Your task to perform on an android device: Clear the shopping cart on amazon.com. Search for dell xps on amazon.com, select the first entry, add it to the cart, then select checkout. Image 0: 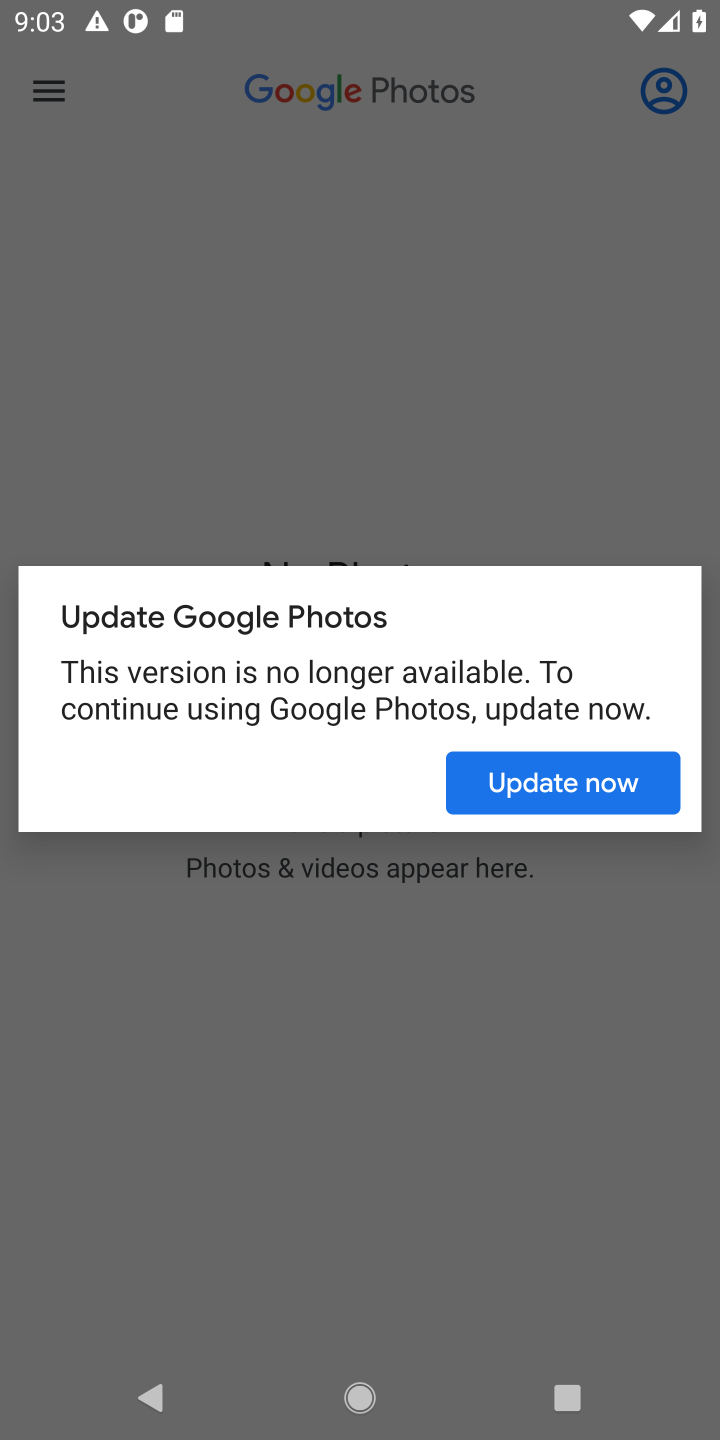
Step 0: press home button
Your task to perform on an android device: Clear the shopping cart on amazon.com. Search for dell xps on amazon.com, select the first entry, add it to the cart, then select checkout. Image 1: 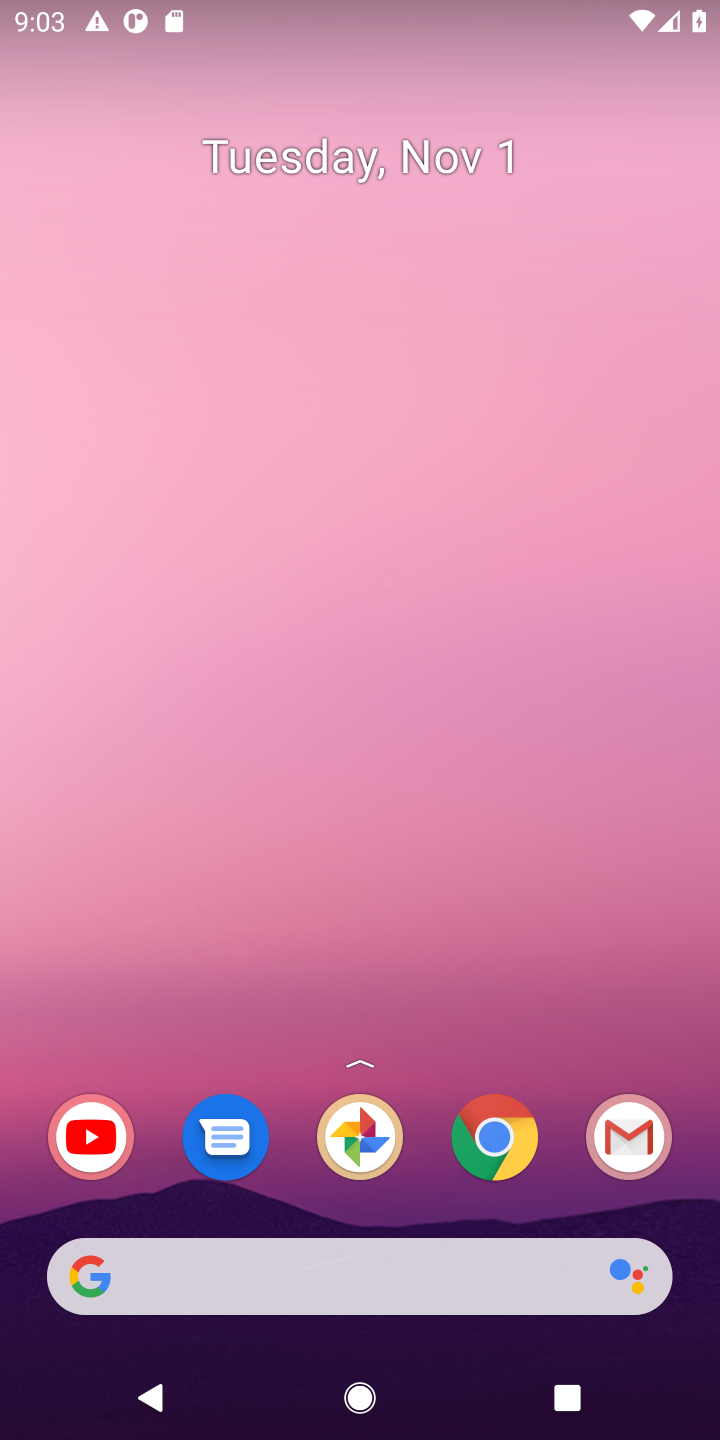
Step 1: drag from (349, 1156) to (385, 434)
Your task to perform on an android device: Clear the shopping cart on amazon.com. Search for dell xps on amazon.com, select the first entry, add it to the cart, then select checkout. Image 2: 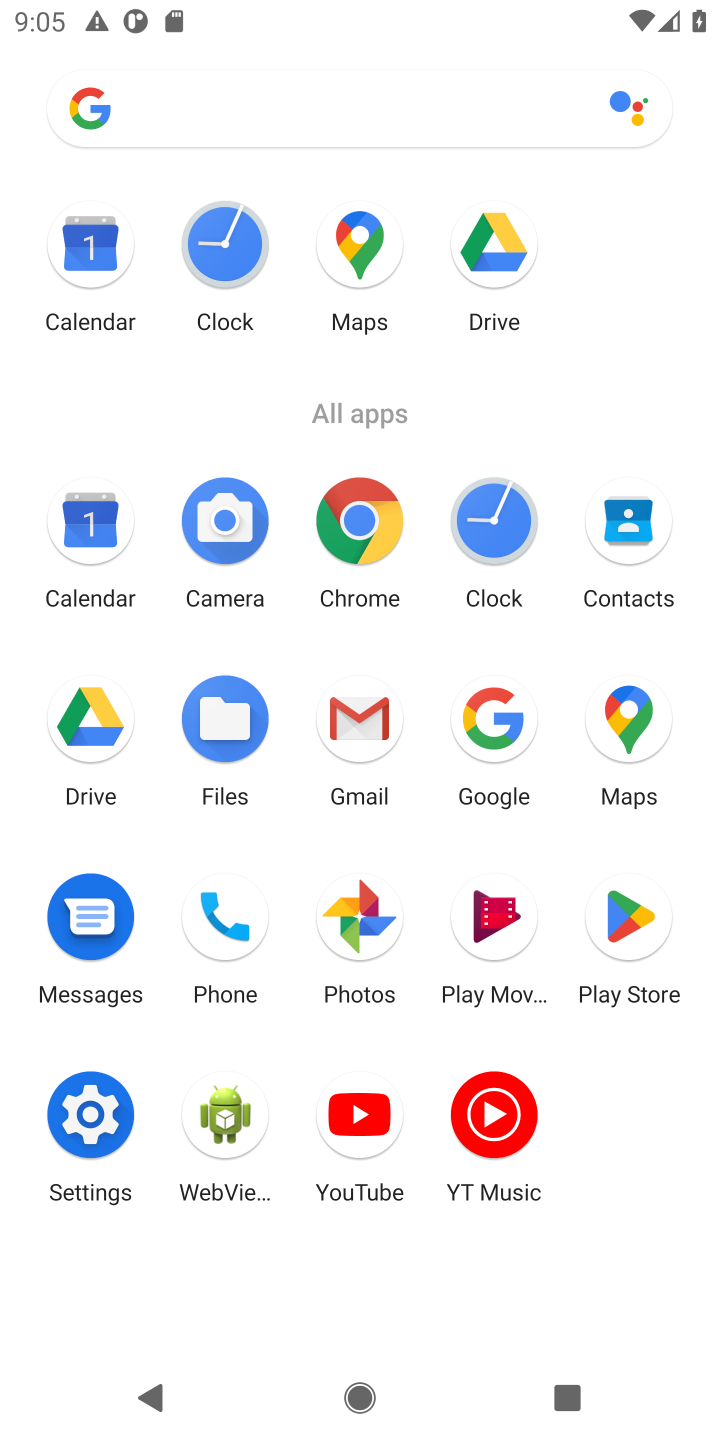
Step 2: click (498, 774)
Your task to perform on an android device: Clear the shopping cart on amazon.com. Search for dell xps on amazon.com, select the first entry, add it to the cart, then select checkout. Image 3: 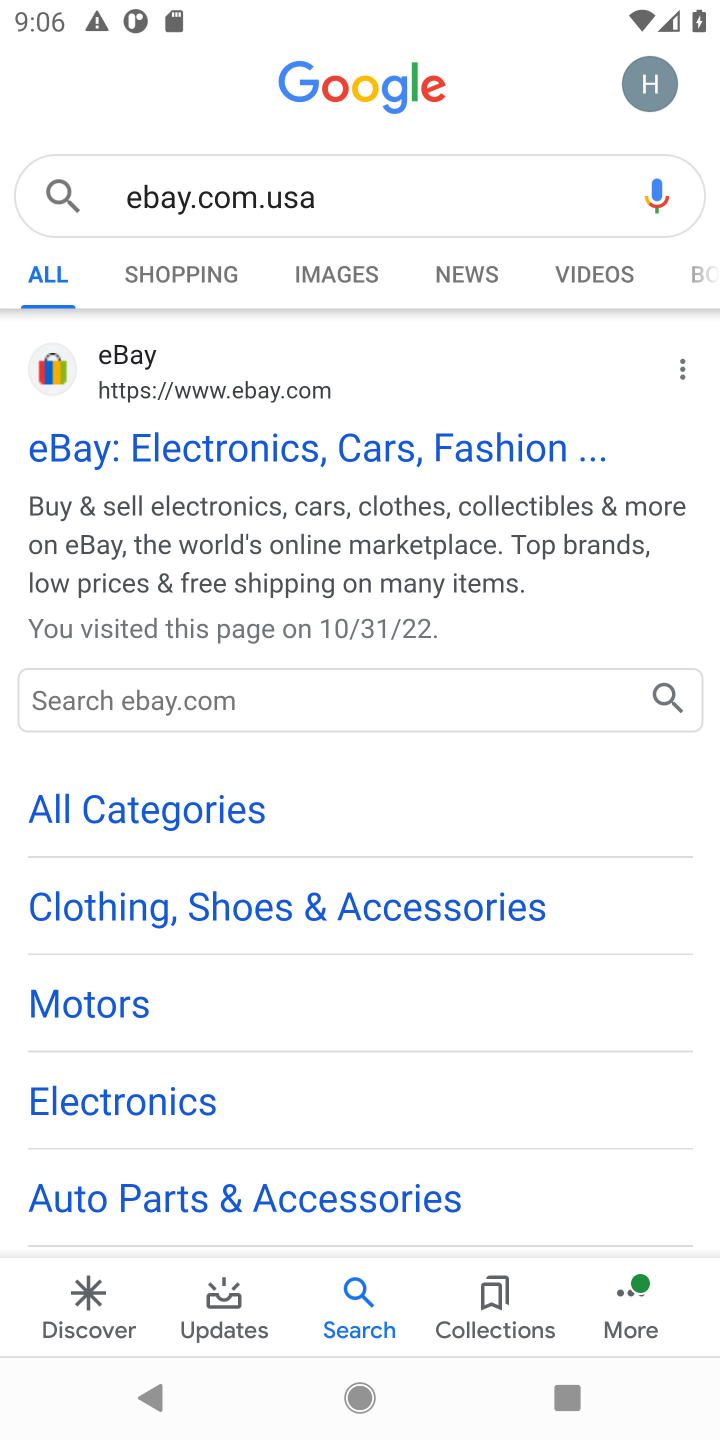
Step 3: click (365, 189)
Your task to perform on an android device: Clear the shopping cart on amazon.com. Search for dell xps on amazon.com, select the first entry, add it to the cart, then select checkout. Image 4: 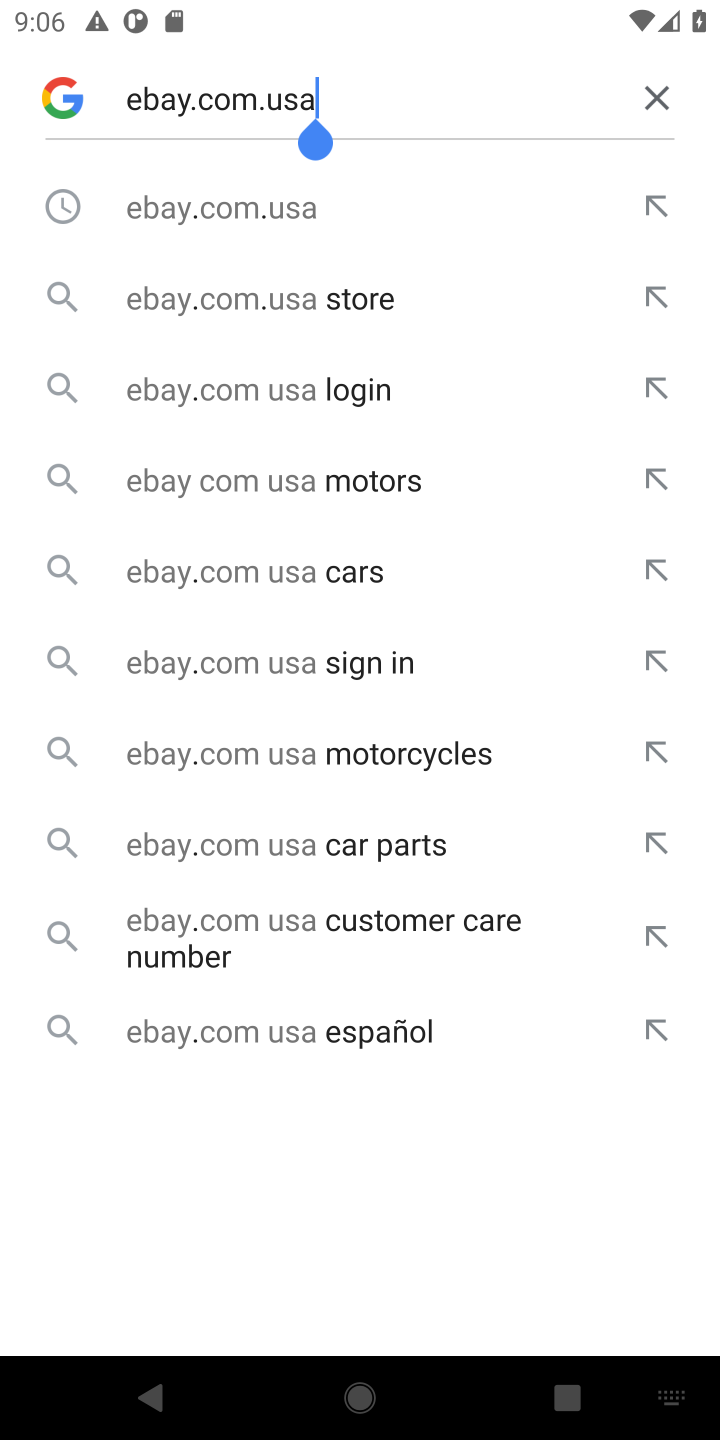
Step 4: click (647, 98)
Your task to perform on an android device: Clear the shopping cart on amazon.com. Search for dell xps on amazon.com, select the first entry, add it to the cart, then select checkout. Image 5: 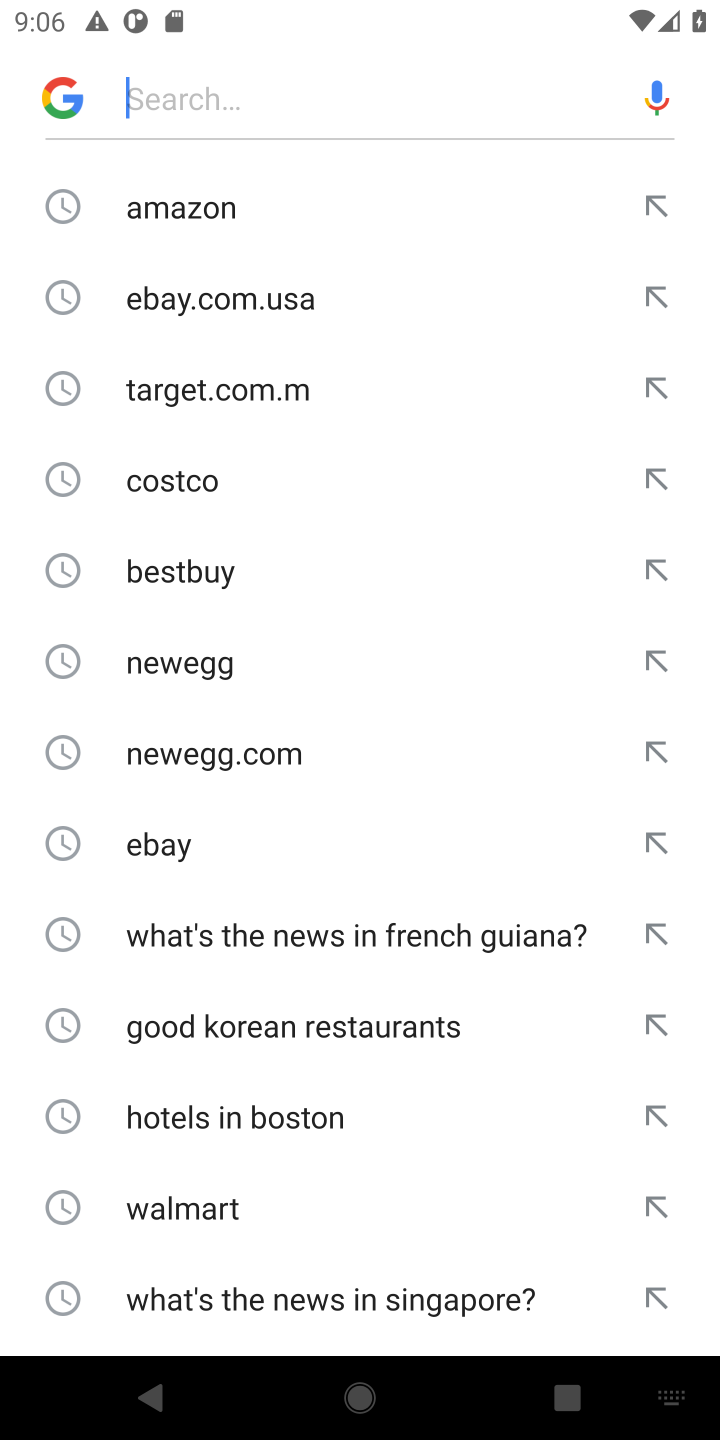
Step 5: click (221, 237)
Your task to perform on an android device: Clear the shopping cart on amazon.com. Search for dell xps on amazon.com, select the first entry, add it to the cart, then select checkout. Image 6: 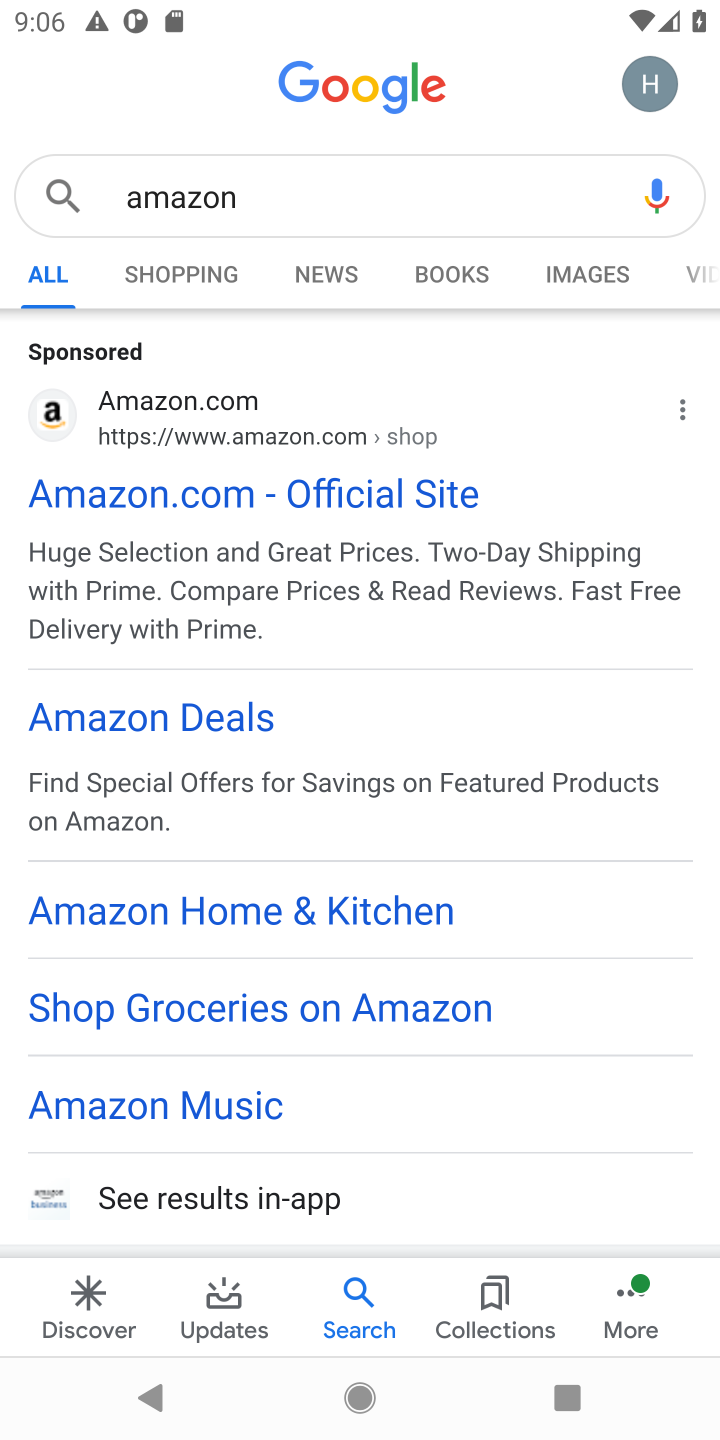
Step 6: click (93, 451)
Your task to perform on an android device: Clear the shopping cart on amazon.com. Search for dell xps on amazon.com, select the first entry, add it to the cart, then select checkout. Image 7: 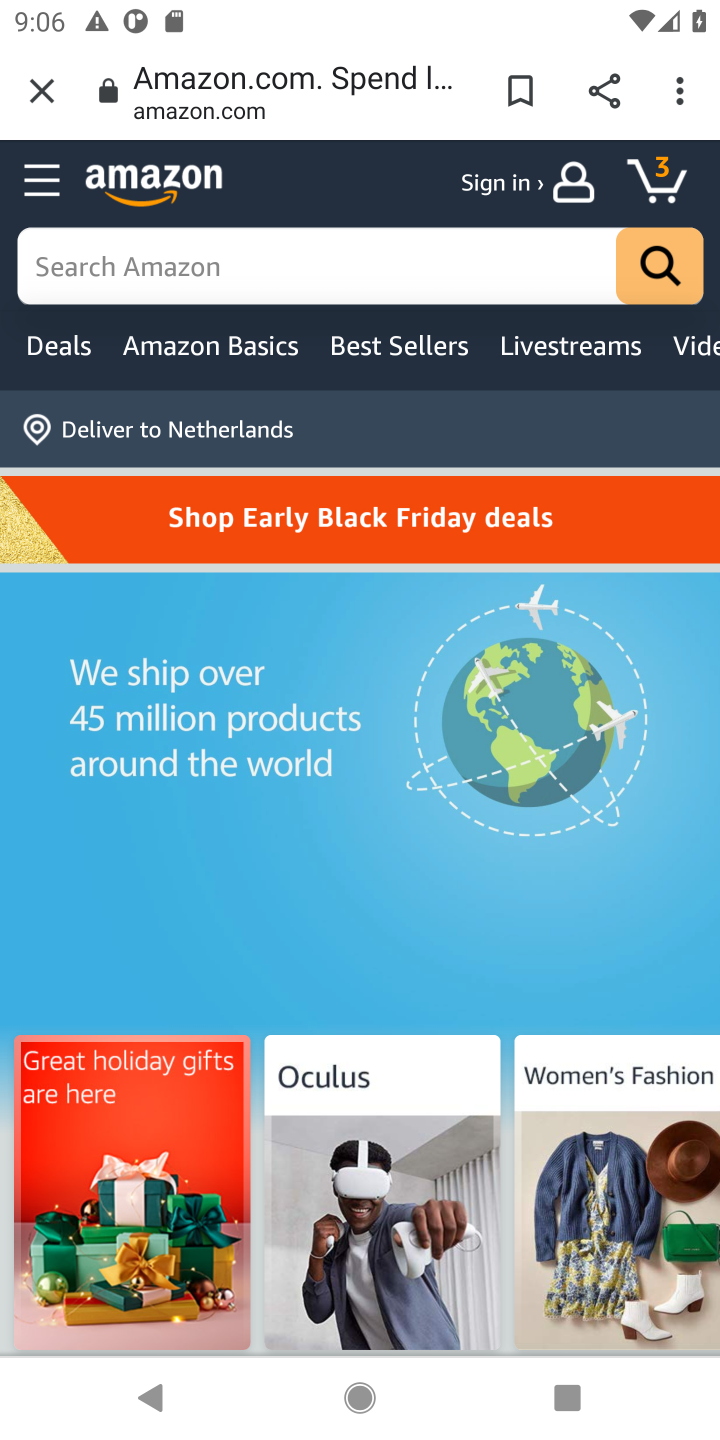
Step 7: click (247, 261)
Your task to perform on an android device: Clear the shopping cart on amazon.com. Search for dell xps on amazon.com, select the first entry, add it to the cart, then select checkout. Image 8: 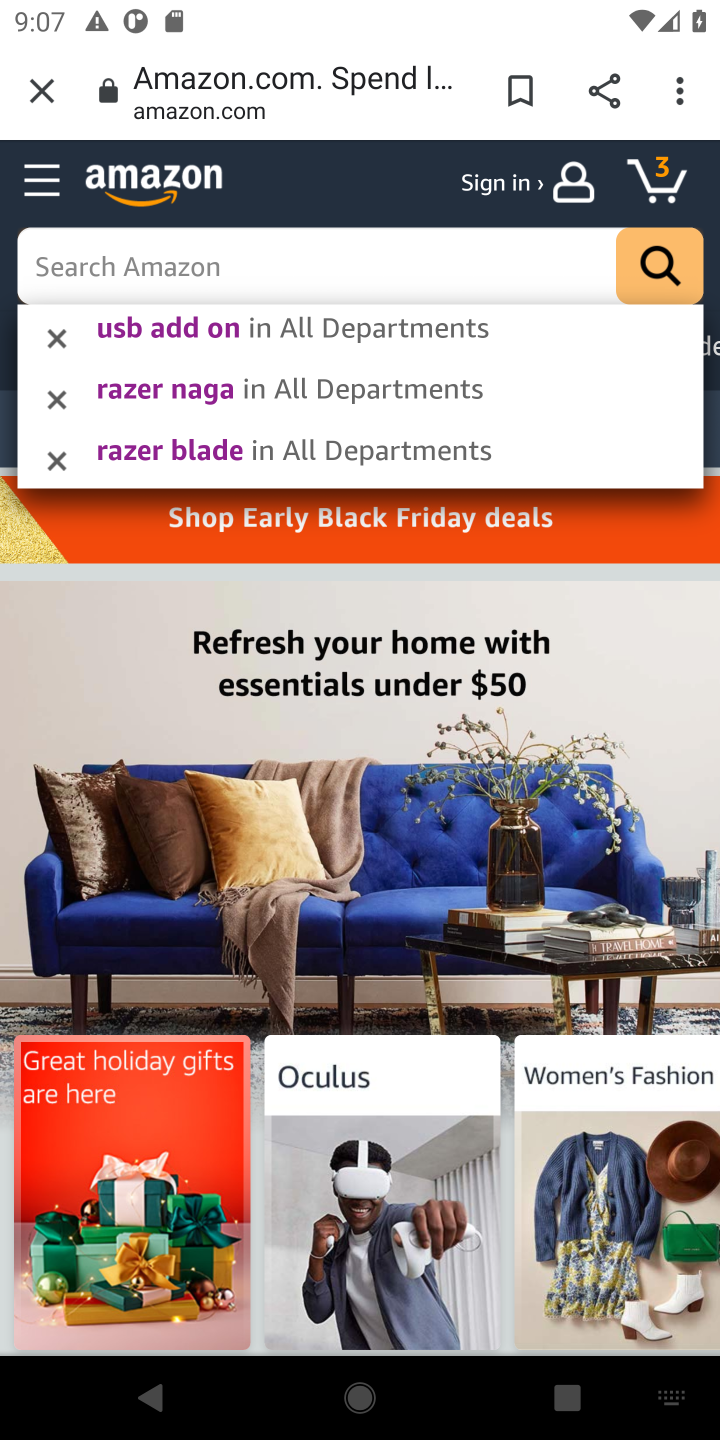
Step 8: type "dell xps"
Your task to perform on an android device: Clear the shopping cart on amazon.com. Search for dell xps on amazon.com, select the first entry, add it to the cart, then select checkout. Image 9: 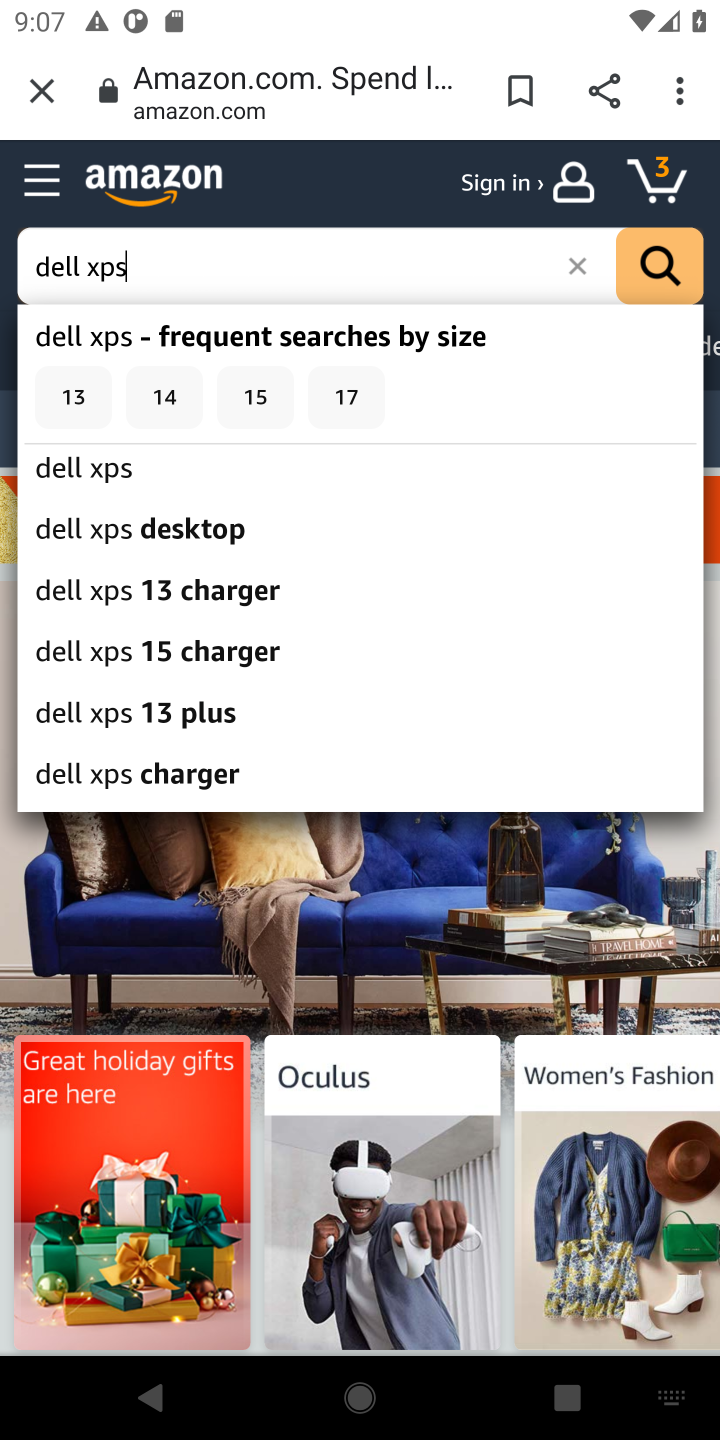
Step 9: click (95, 471)
Your task to perform on an android device: Clear the shopping cart on amazon.com. Search for dell xps on amazon.com, select the first entry, add it to the cart, then select checkout. Image 10: 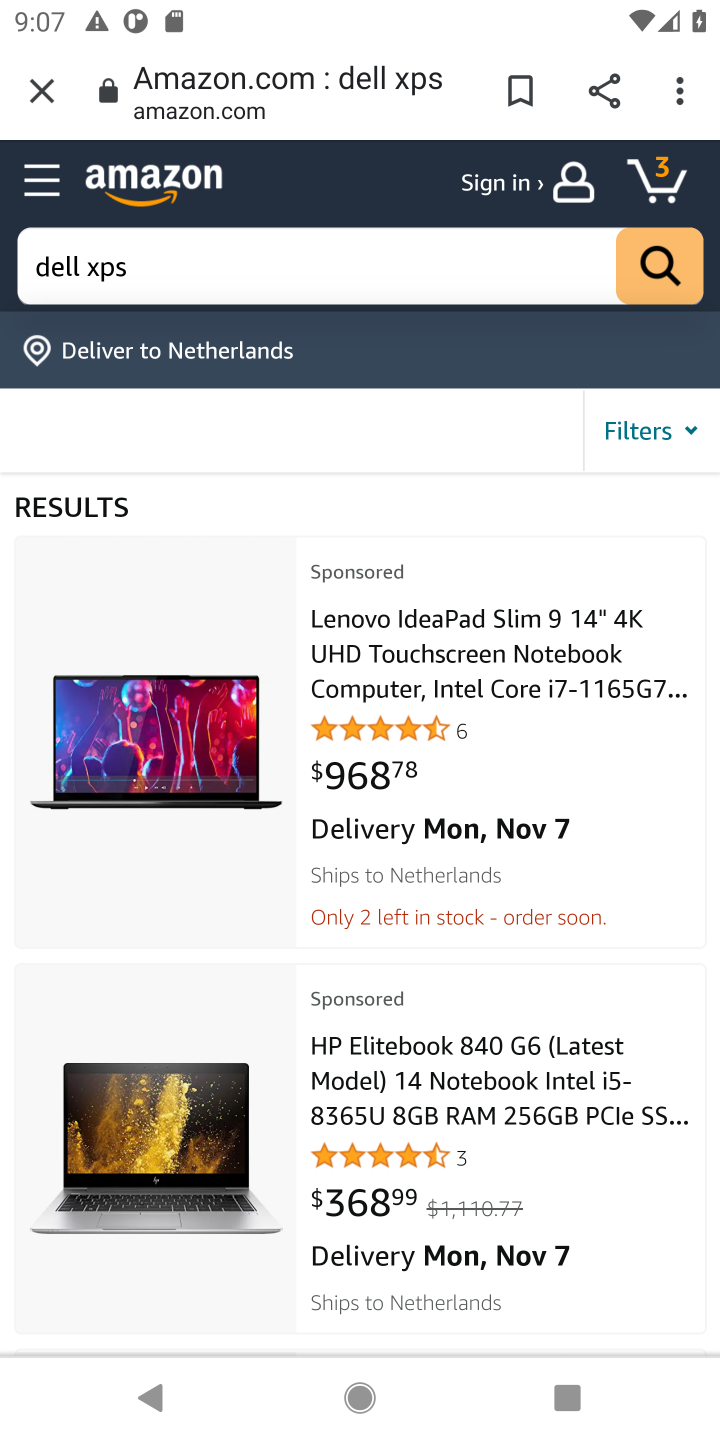
Step 10: click (337, 679)
Your task to perform on an android device: Clear the shopping cart on amazon.com. Search for dell xps on amazon.com, select the first entry, add it to the cart, then select checkout. Image 11: 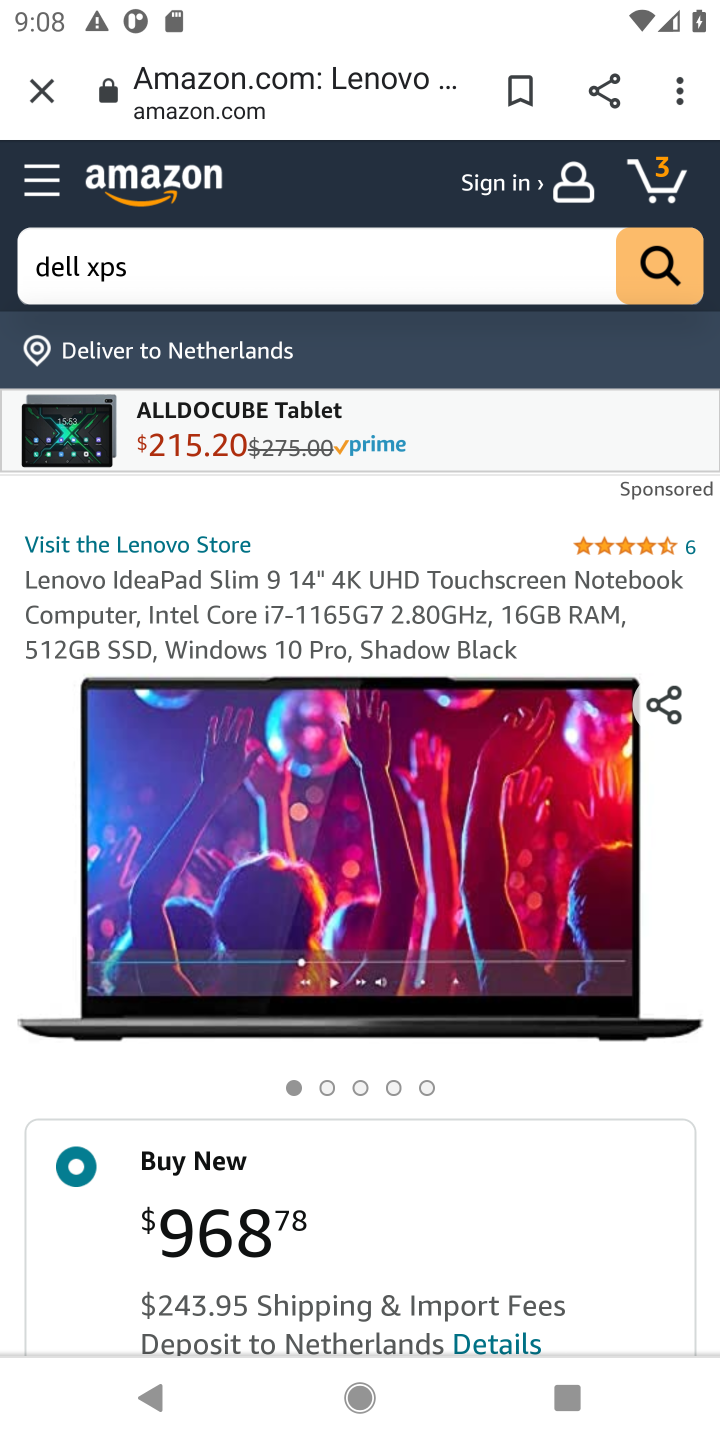
Step 11: drag from (492, 981) to (335, 119)
Your task to perform on an android device: Clear the shopping cart on amazon.com. Search for dell xps on amazon.com, select the first entry, add it to the cart, then select checkout. Image 12: 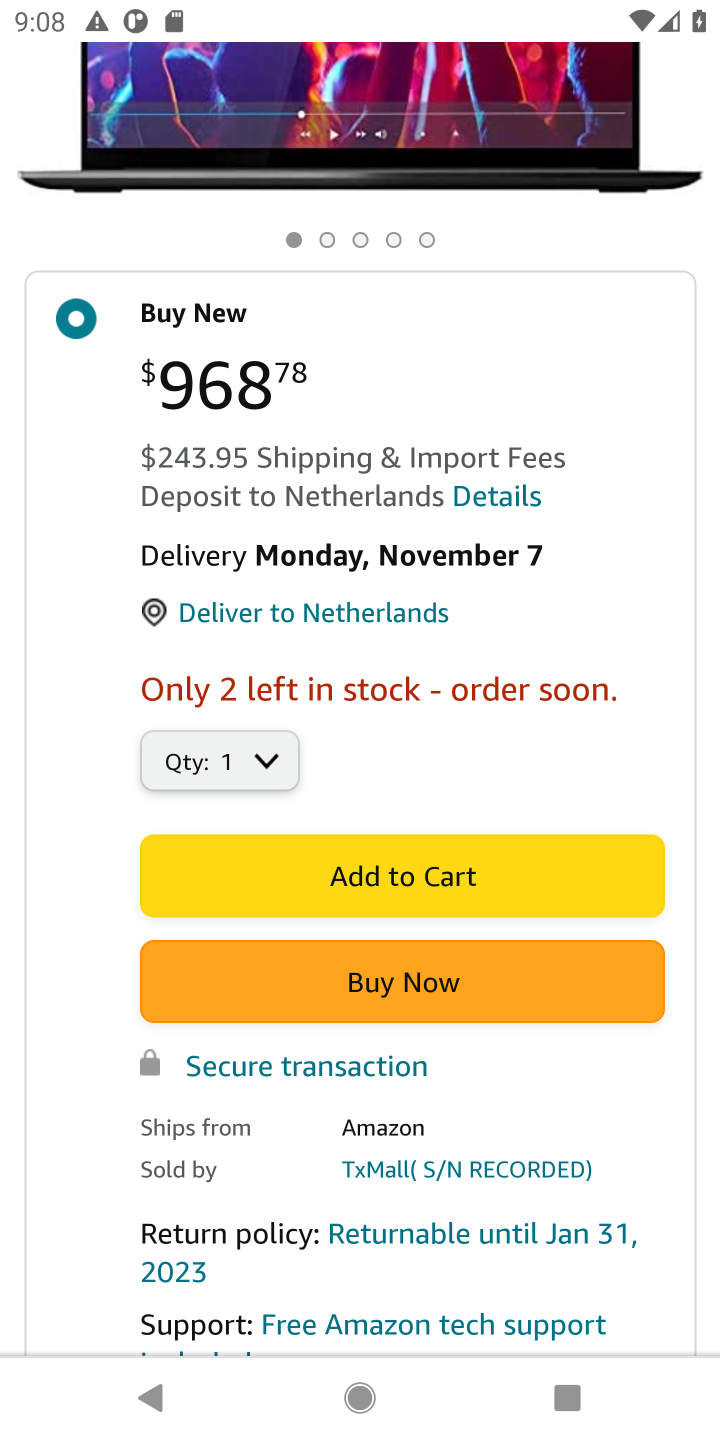
Step 12: click (392, 873)
Your task to perform on an android device: Clear the shopping cart on amazon.com. Search for dell xps on amazon.com, select the first entry, add it to the cart, then select checkout. Image 13: 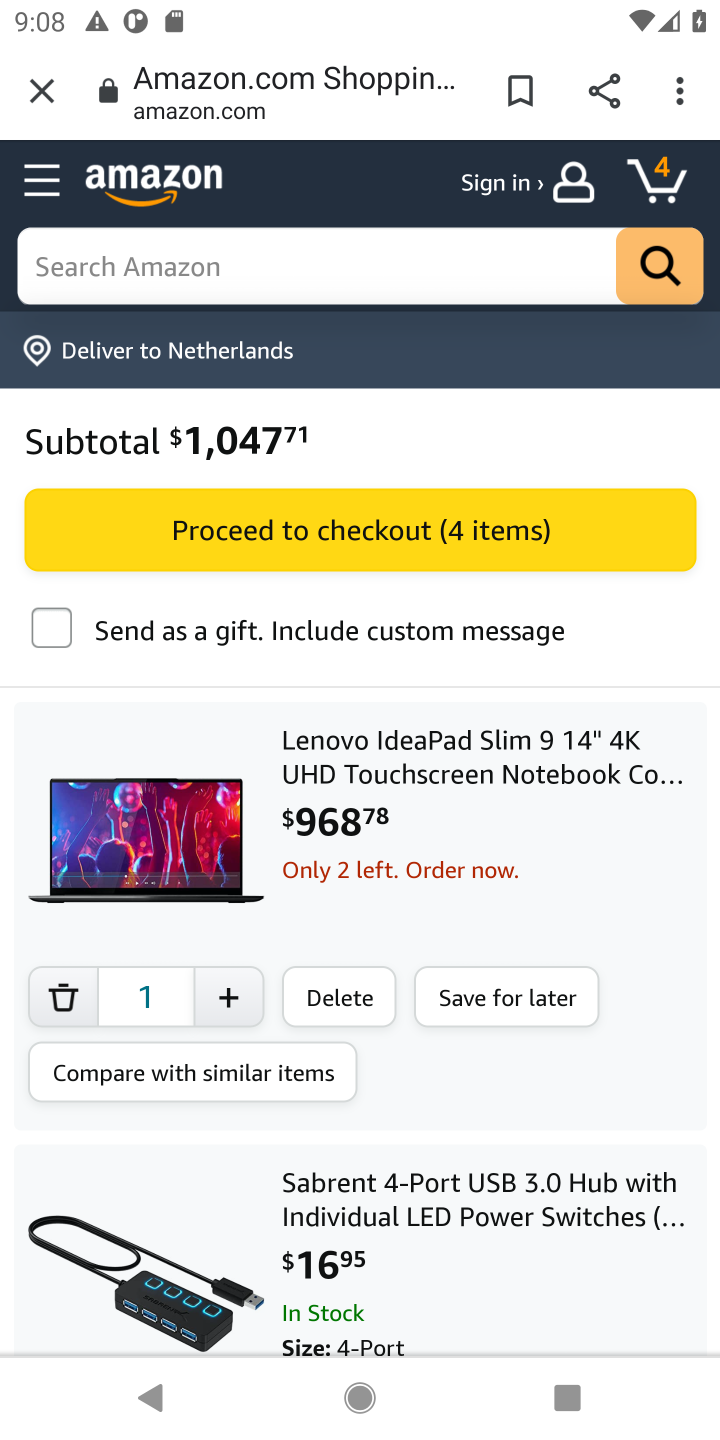
Step 13: click (360, 524)
Your task to perform on an android device: Clear the shopping cart on amazon.com. Search for dell xps on amazon.com, select the first entry, add it to the cart, then select checkout. Image 14: 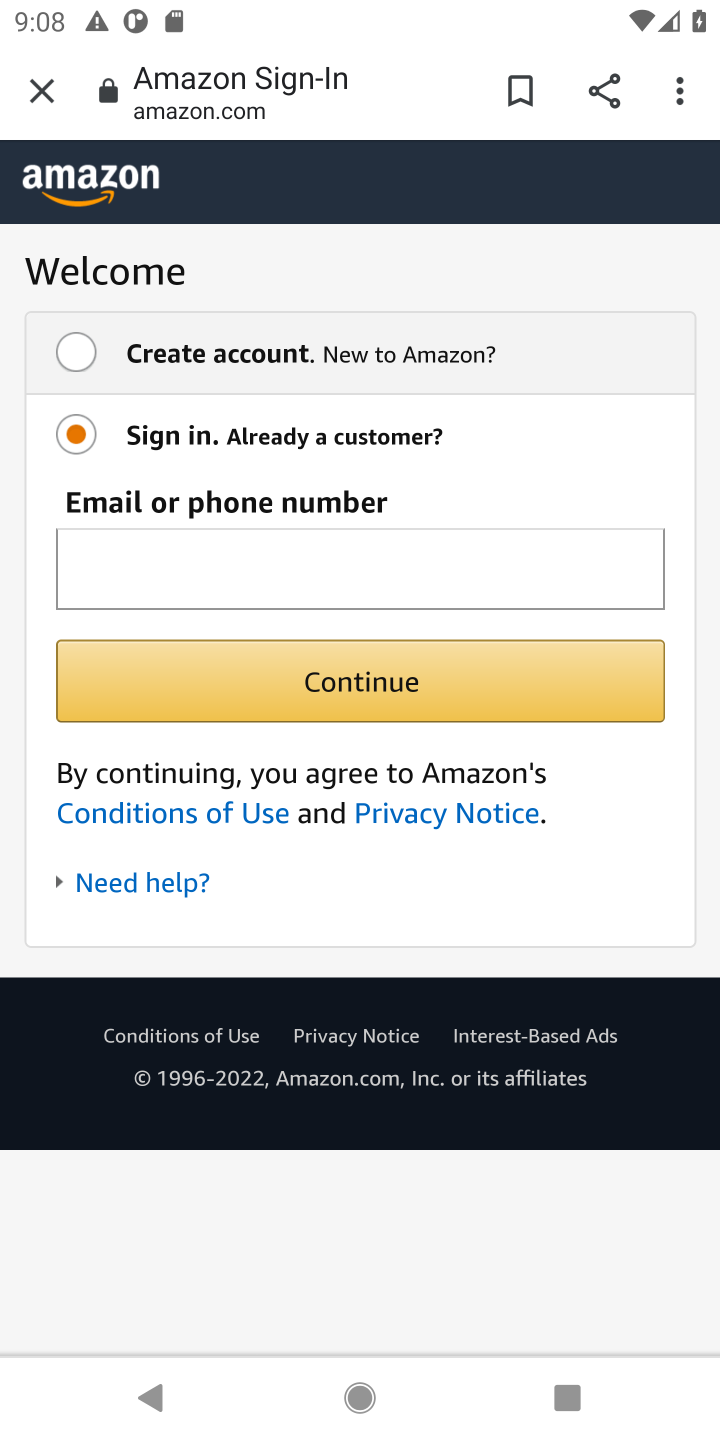
Step 14: task complete